Your task to perform on an android device: What is the news today? Image 0: 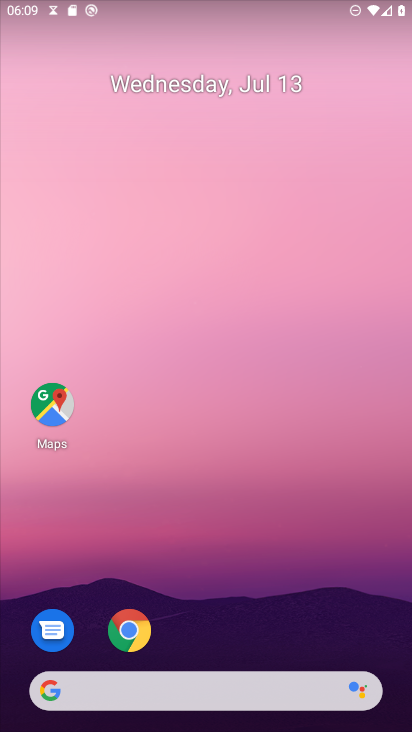
Step 0: drag from (321, 658) to (370, 106)
Your task to perform on an android device: What is the news today? Image 1: 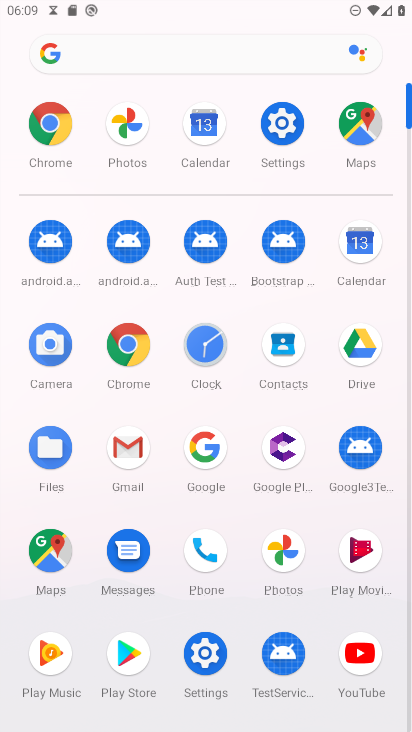
Step 1: click (134, 335)
Your task to perform on an android device: What is the news today? Image 2: 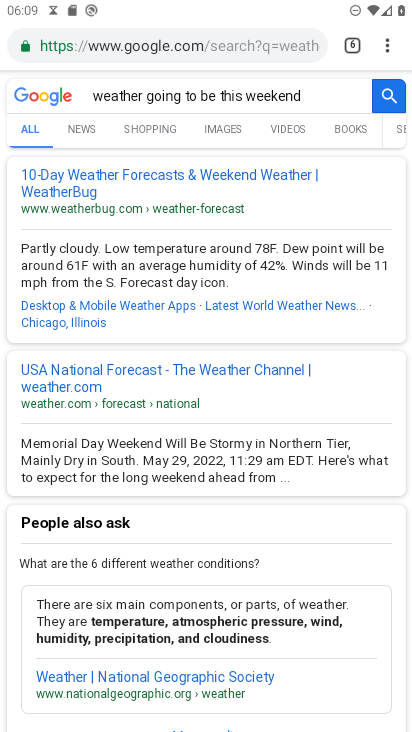
Step 2: click (300, 60)
Your task to perform on an android device: What is the news today? Image 3: 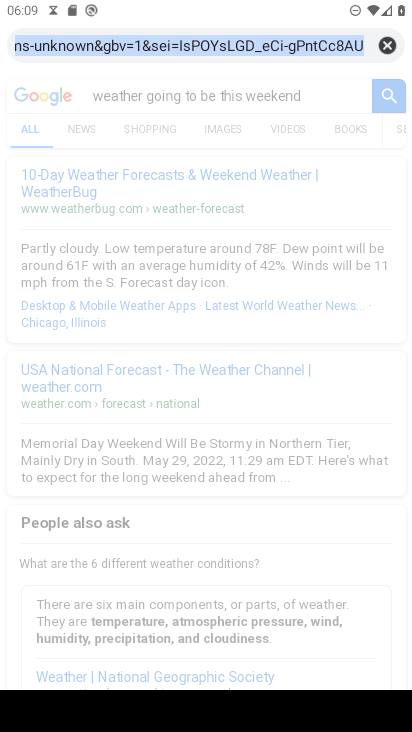
Step 3: type "news today"
Your task to perform on an android device: What is the news today? Image 4: 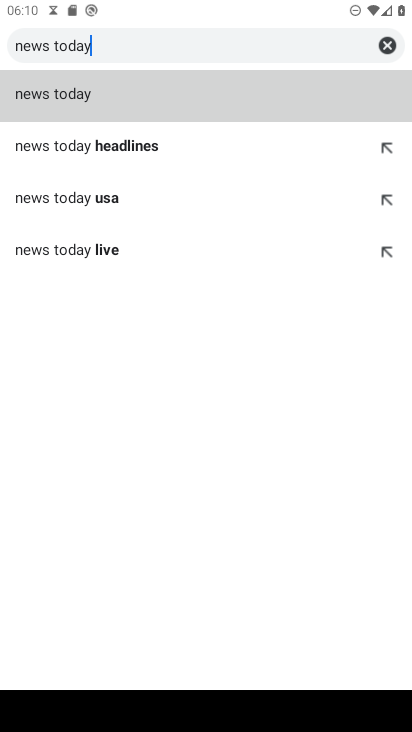
Step 4: click (52, 97)
Your task to perform on an android device: What is the news today? Image 5: 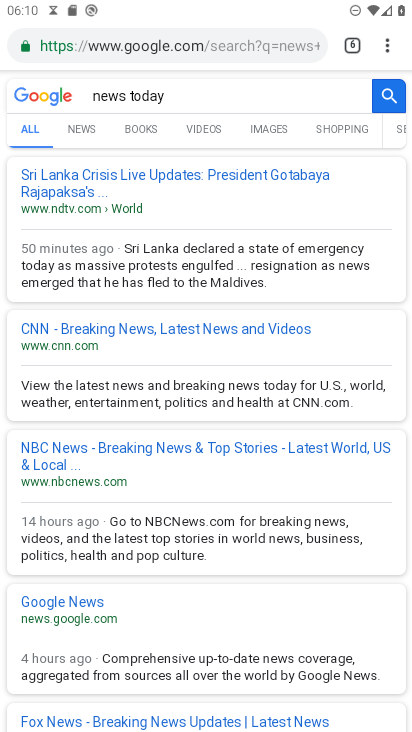
Step 5: task complete